Your task to perform on an android device: Go to Maps Image 0: 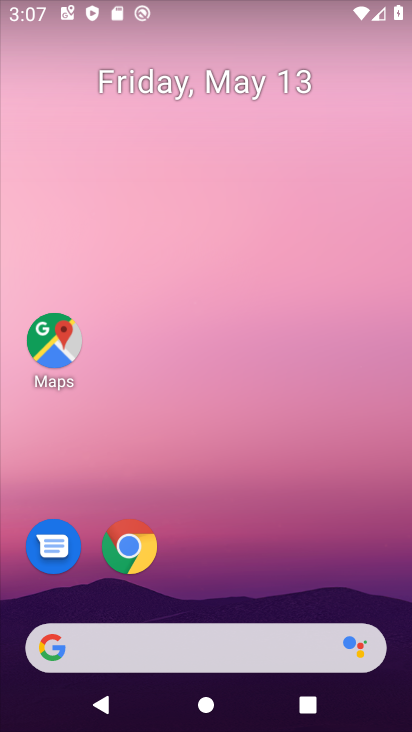
Step 0: click (69, 320)
Your task to perform on an android device: Go to Maps Image 1: 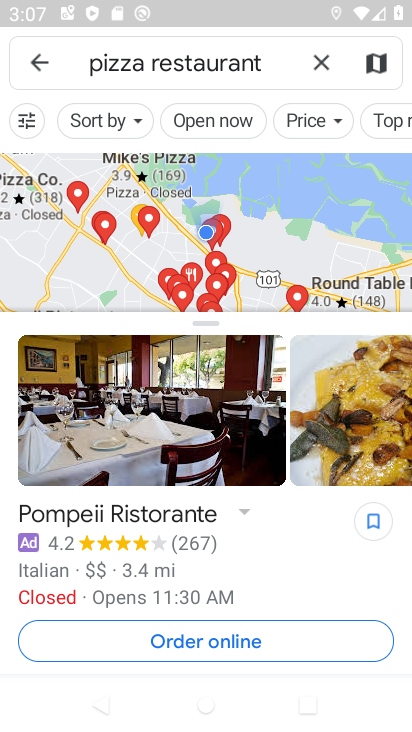
Step 1: task complete